Your task to perform on an android device: find snoozed emails in the gmail app Image 0: 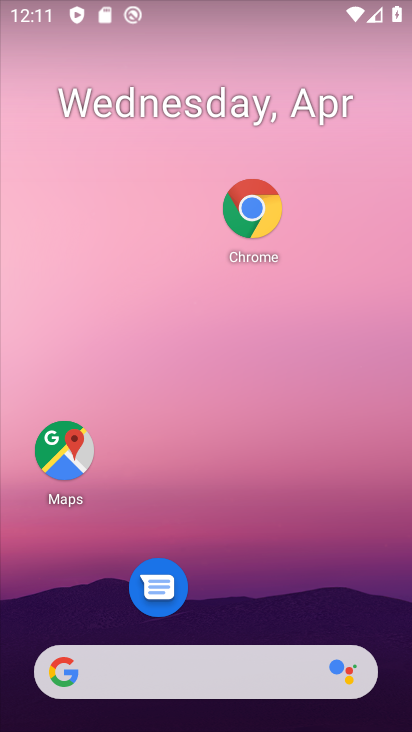
Step 0: drag from (165, 590) to (243, 117)
Your task to perform on an android device: find snoozed emails in the gmail app Image 1: 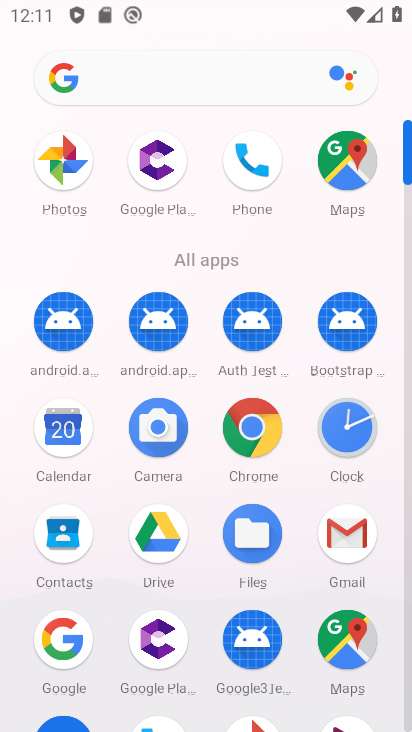
Step 1: click (354, 554)
Your task to perform on an android device: find snoozed emails in the gmail app Image 2: 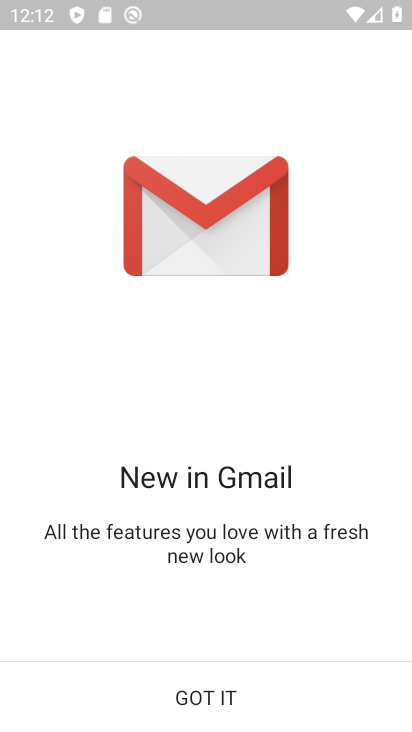
Step 2: click (186, 703)
Your task to perform on an android device: find snoozed emails in the gmail app Image 3: 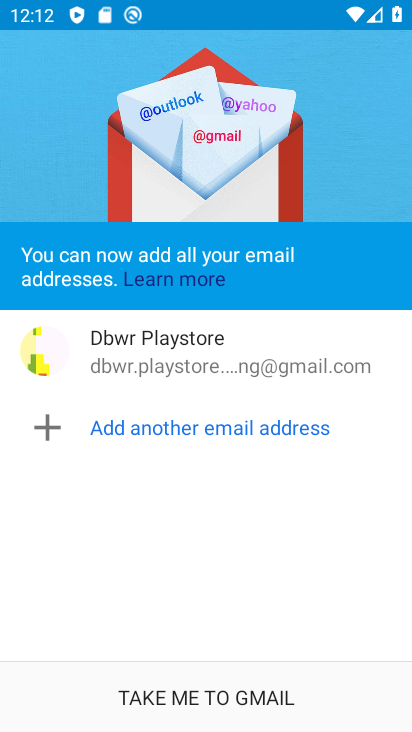
Step 3: click (187, 702)
Your task to perform on an android device: find snoozed emails in the gmail app Image 4: 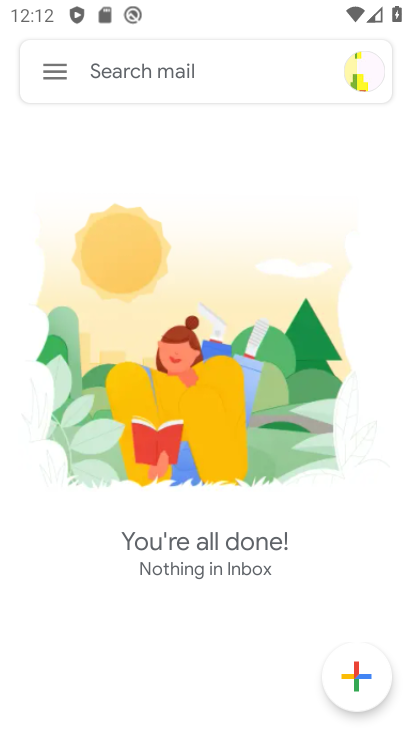
Step 4: click (65, 73)
Your task to perform on an android device: find snoozed emails in the gmail app Image 5: 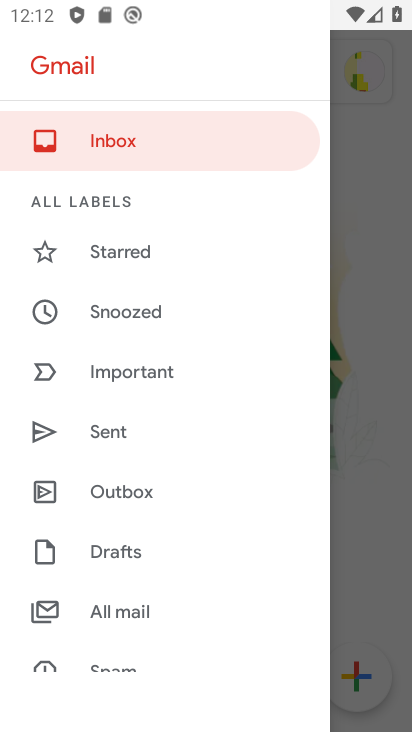
Step 5: click (135, 305)
Your task to perform on an android device: find snoozed emails in the gmail app Image 6: 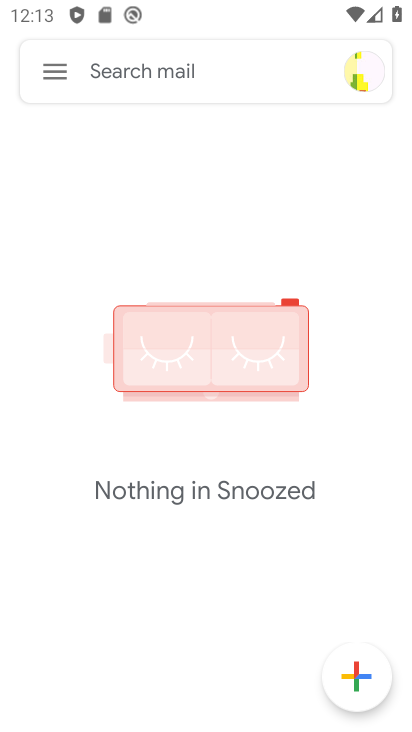
Step 6: task complete